Your task to perform on an android device: star an email in the gmail app Image 0: 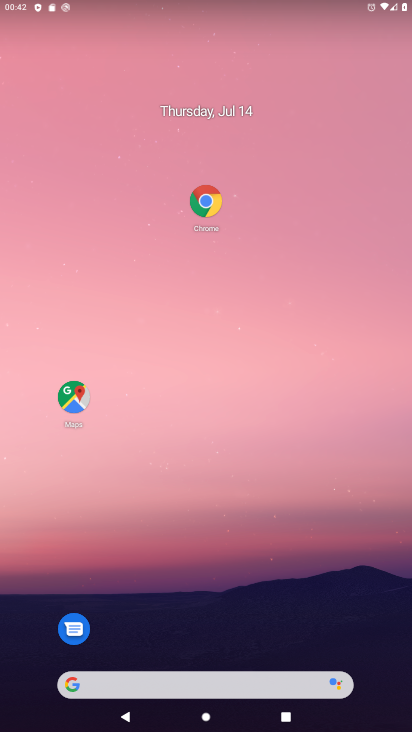
Step 0: drag from (211, 654) to (217, 96)
Your task to perform on an android device: star an email in the gmail app Image 1: 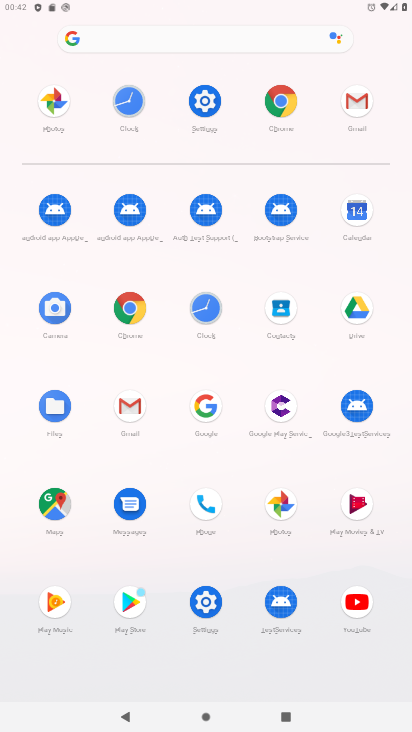
Step 1: click (127, 402)
Your task to perform on an android device: star an email in the gmail app Image 2: 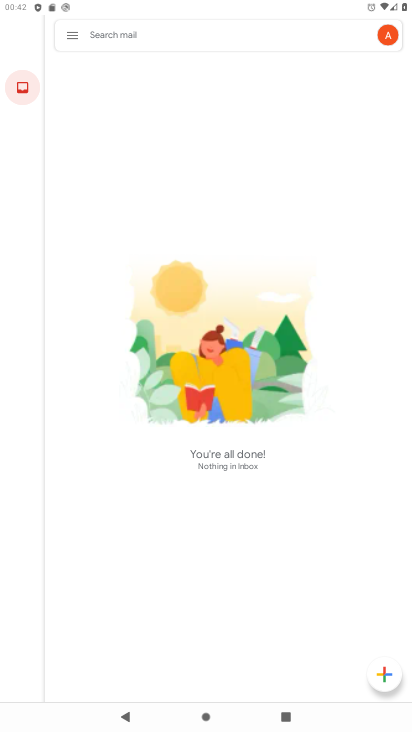
Step 2: task complete